Your task to perform on an android device: uninstall "LinkedIn" Image 0: 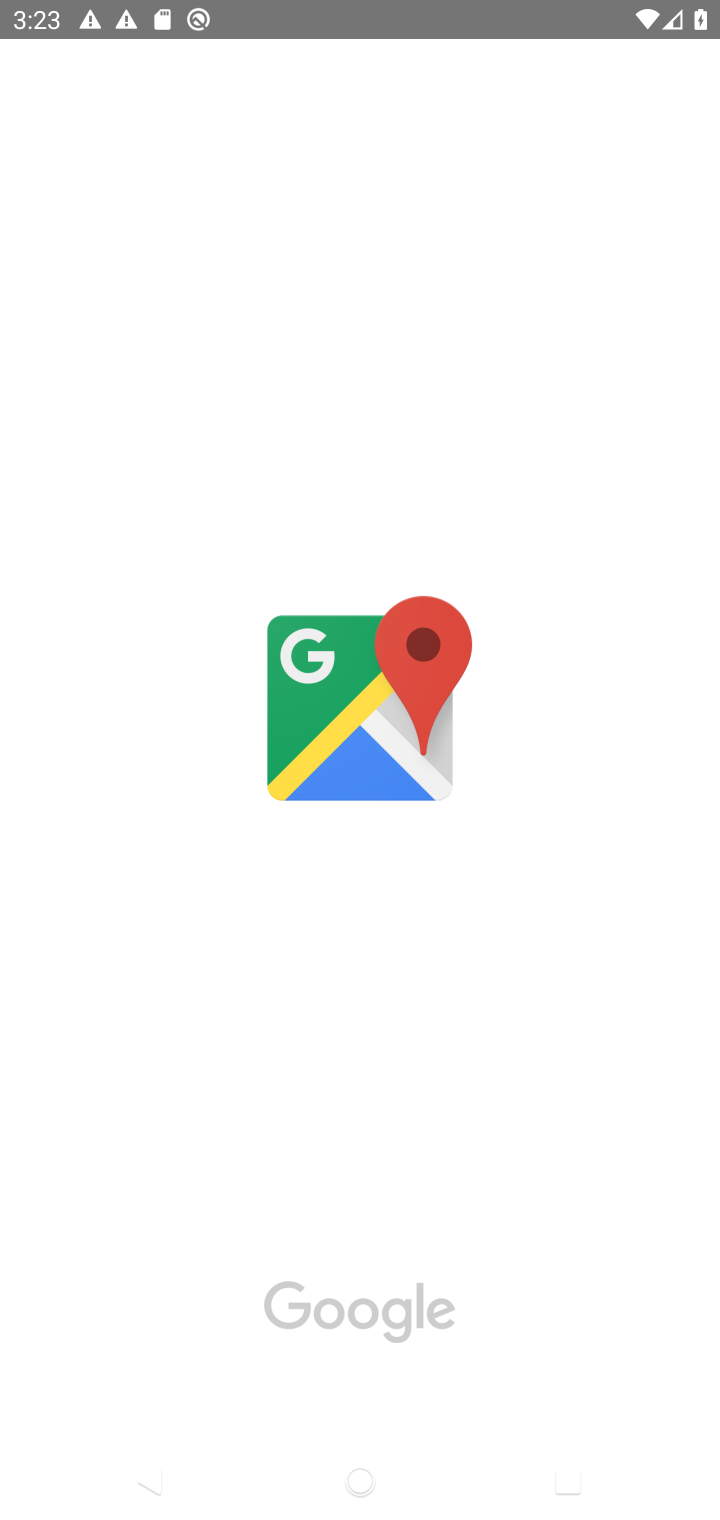
Step 0: press home button
Your task to perform on an android device: uninstall "LinkedIn" Image 1: 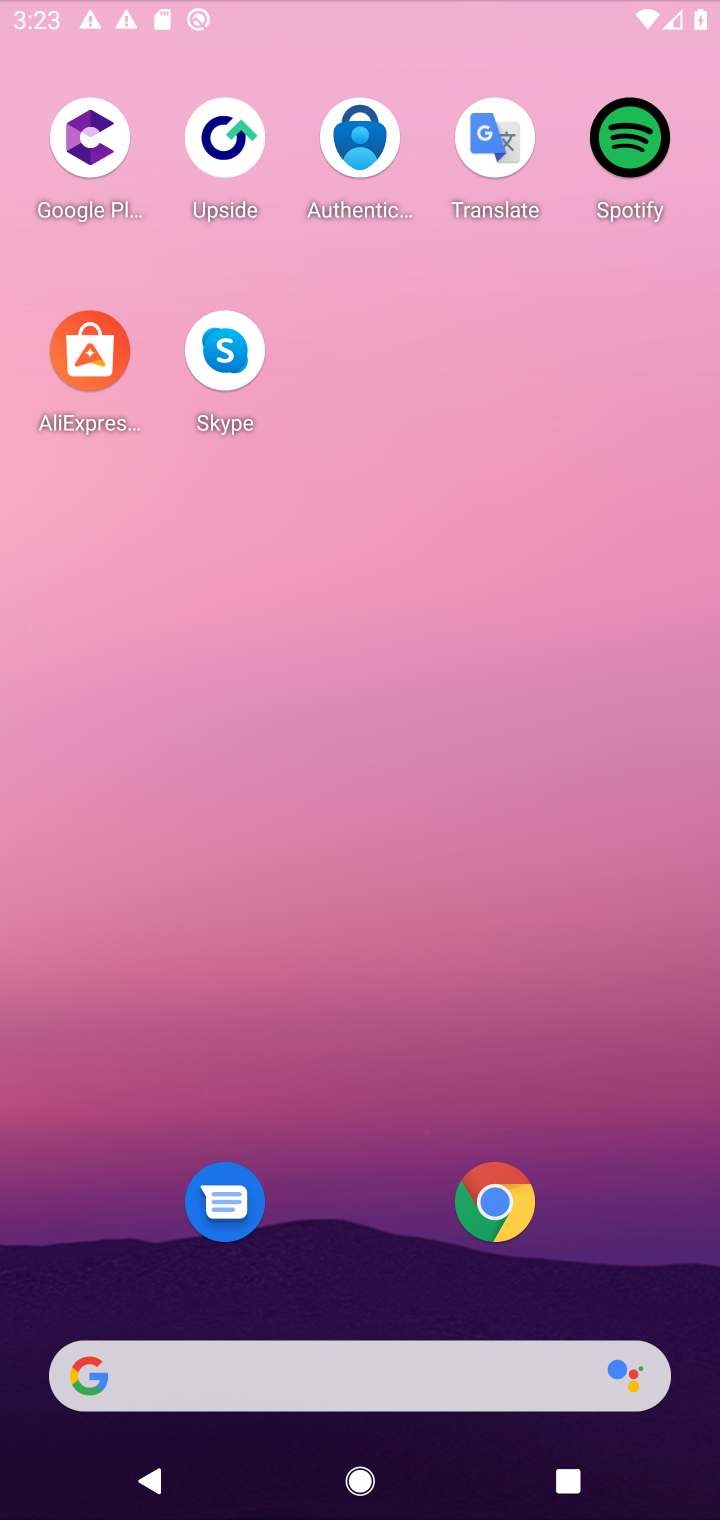
Step 1: press home button
Your task to perform on an android device: uninstall "LinkedIn" Image 2: 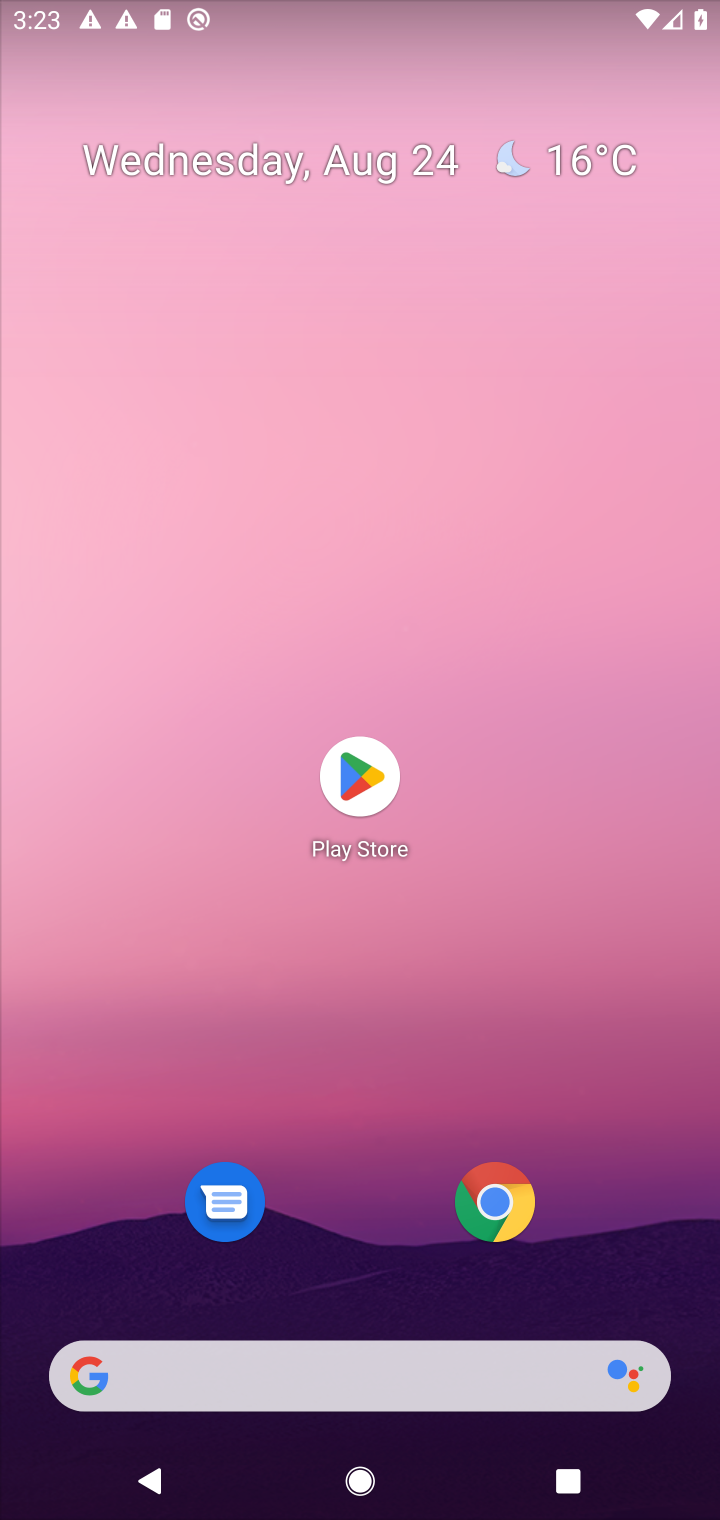
Step 2: press home button
Your task to perform on an android device: uninstall "LinkedIn" Image 3: 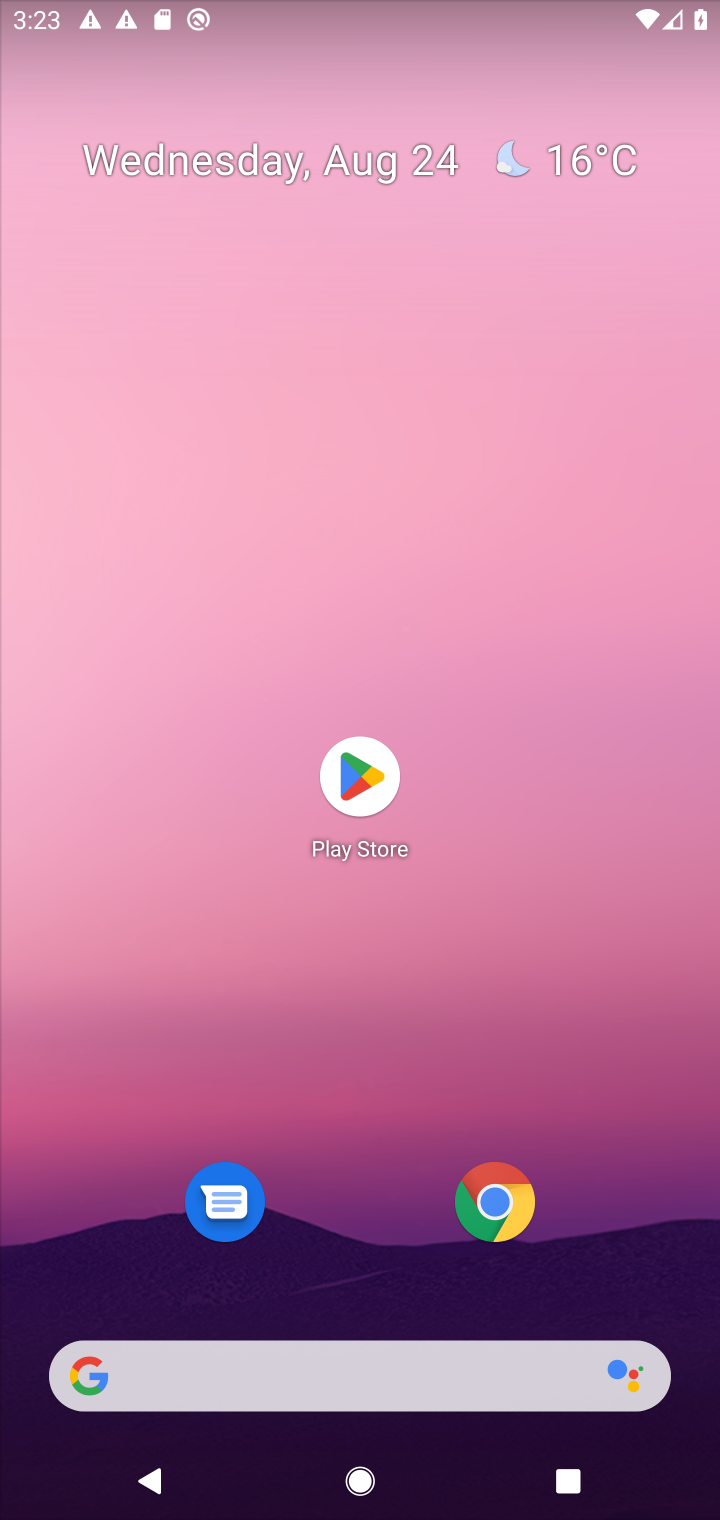
Step 3: click (377, 776)
Your task to perform on an android device: uninstall "LinkedIn" Image 4: 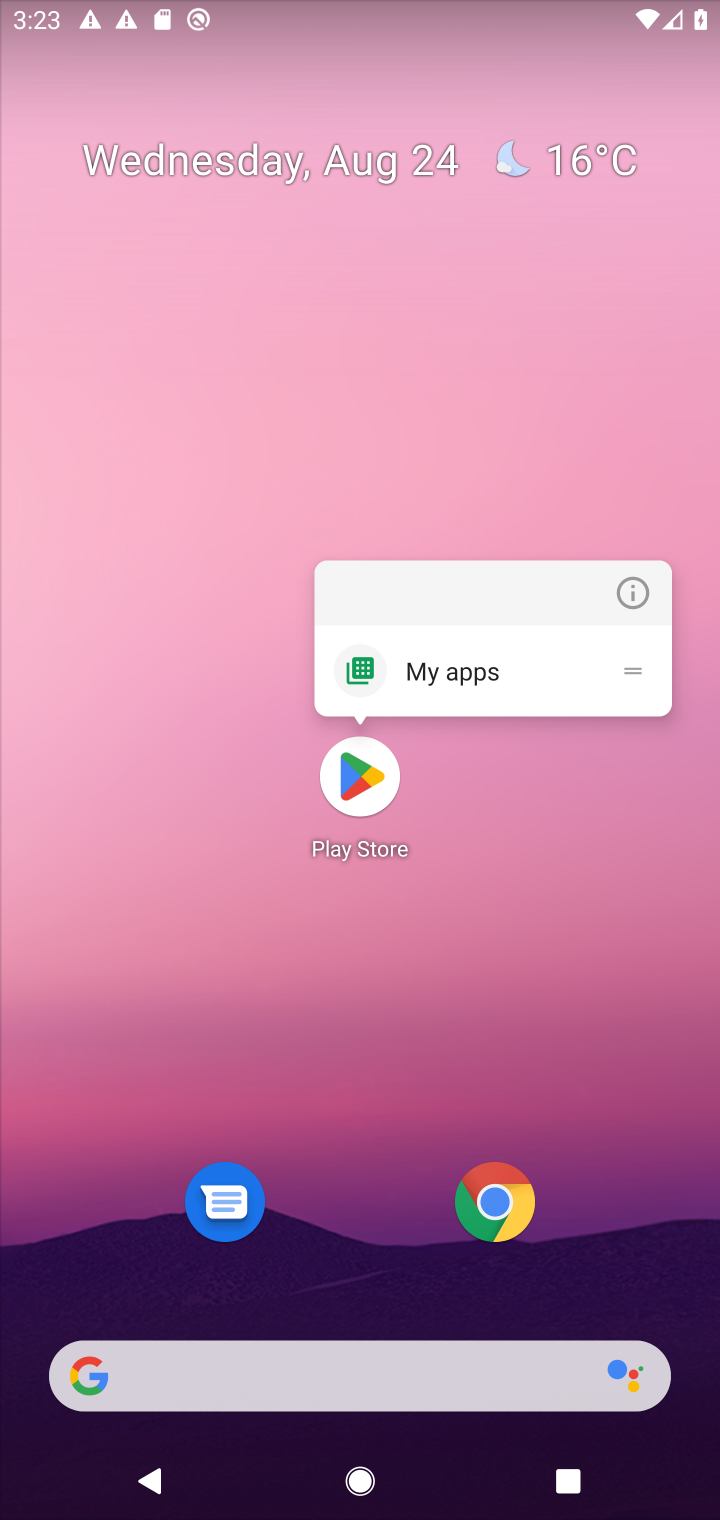
Step 4: click (355, 783)
Your task to perform on an android device: uninstall "LinkedIn" Image 5: 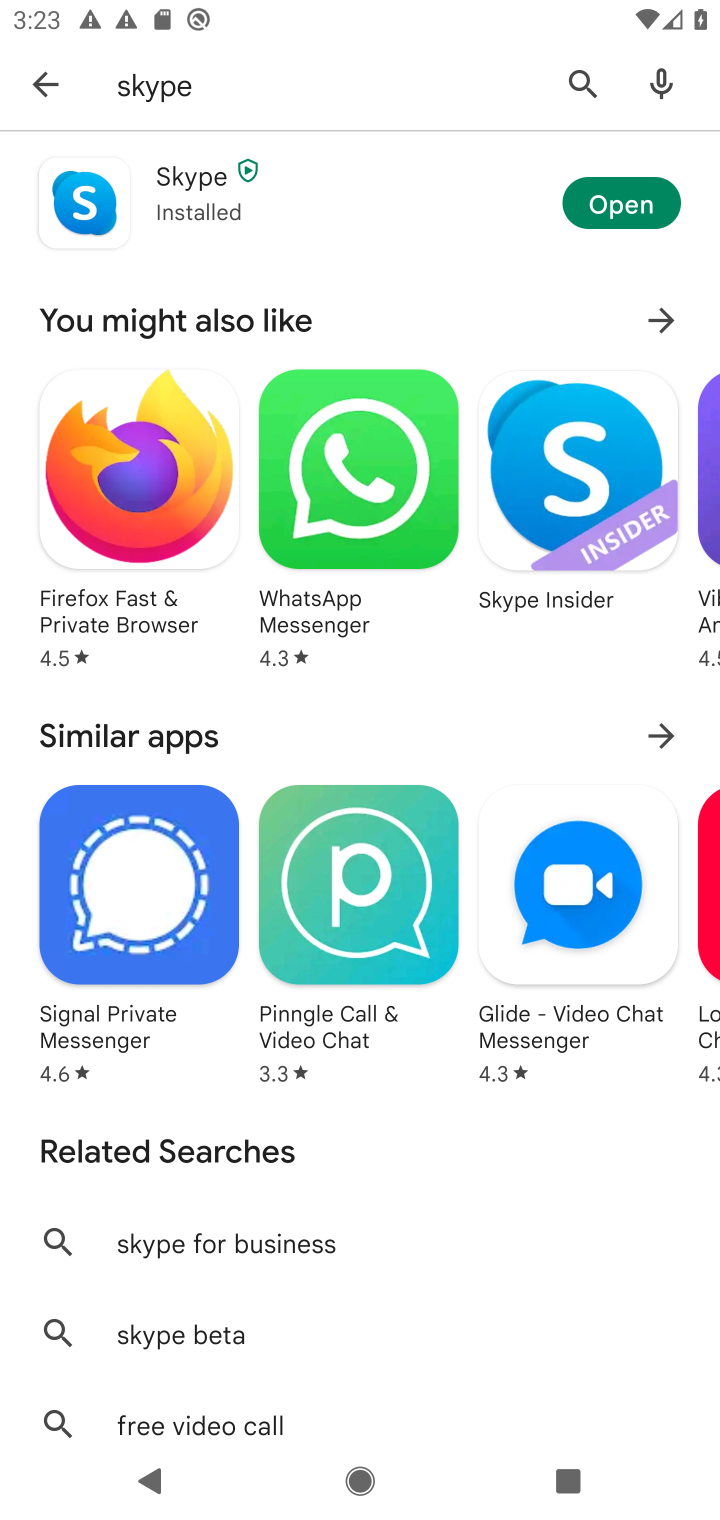
Step 5: click (584, 93)
Your task to perform on an android device: uninstall "LinkedIn" Image 6: 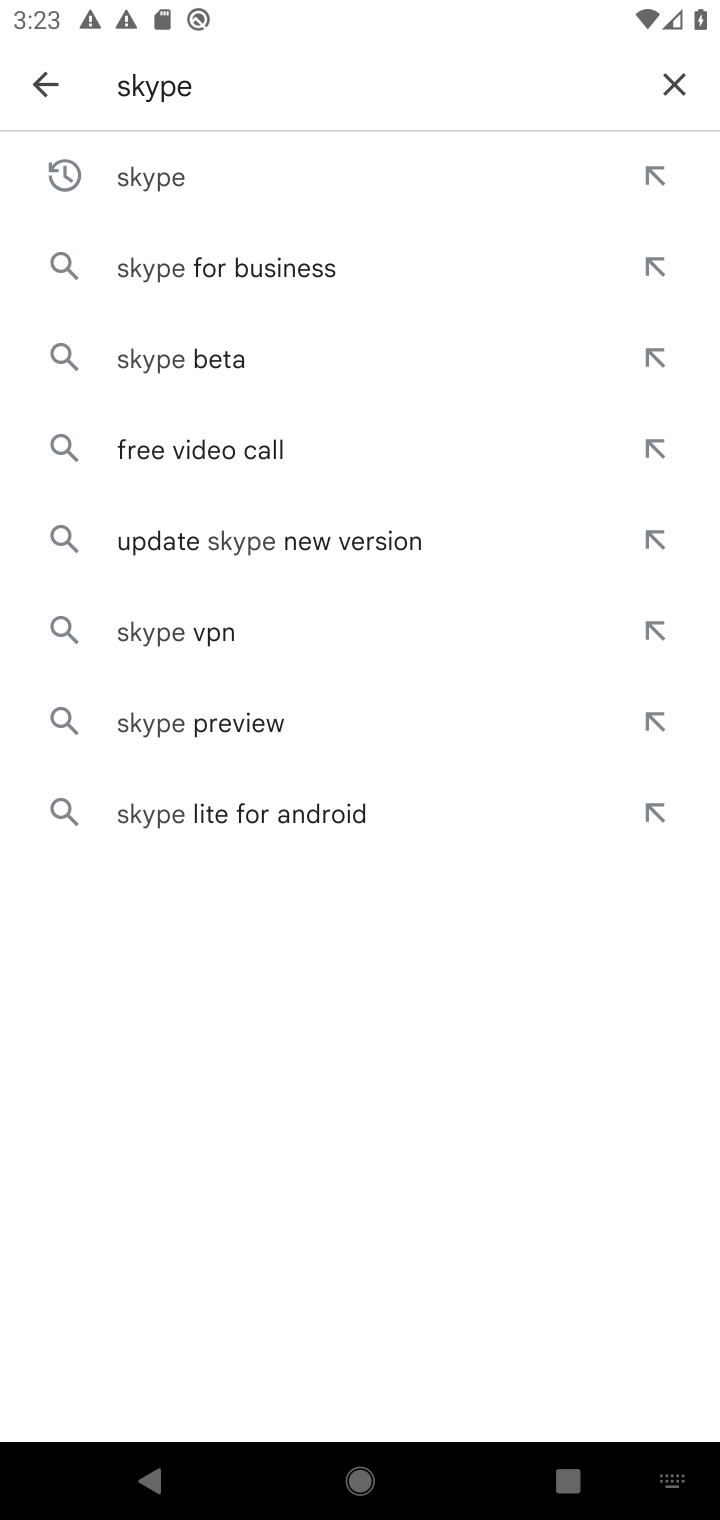
Step 6: click (676, 77)
Your task to perform on an android device: uninstall "LinkedIn" Image 7: 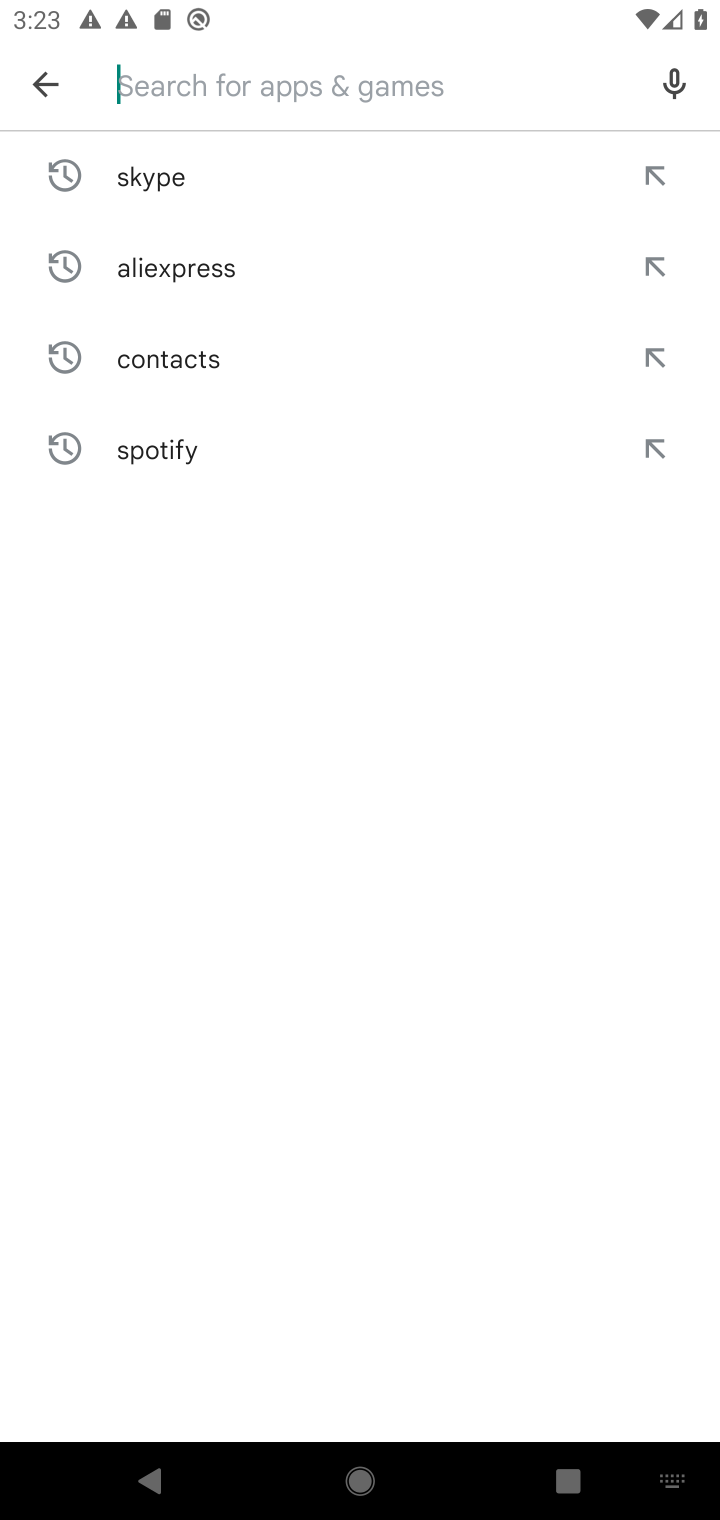
Step 7: type "LinkedIn"
Your task to perform on an android device: uninstall "LinkedIn" Image 8: 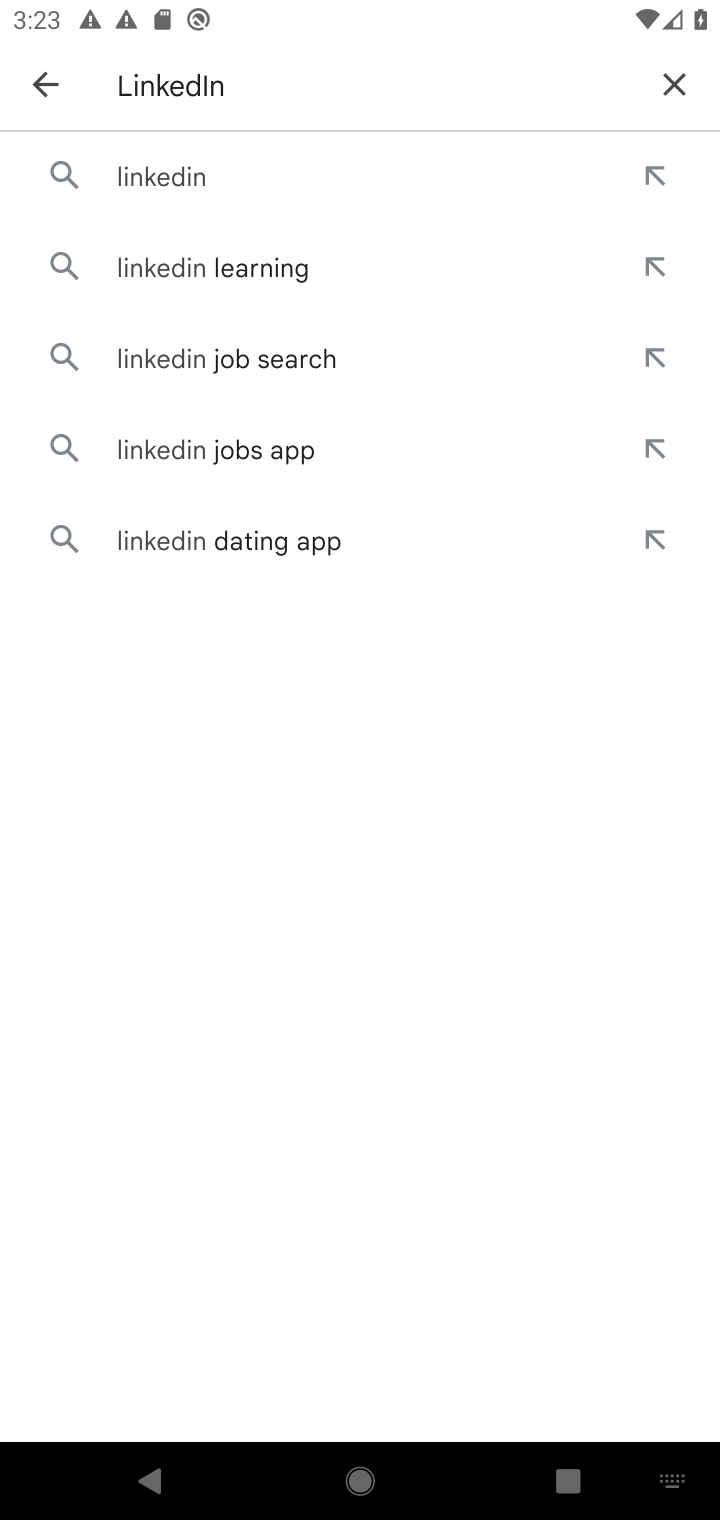
Step 8: click (213, 176)
Your task to perform on an android device: uninstall "LinkedIn" Image 9: 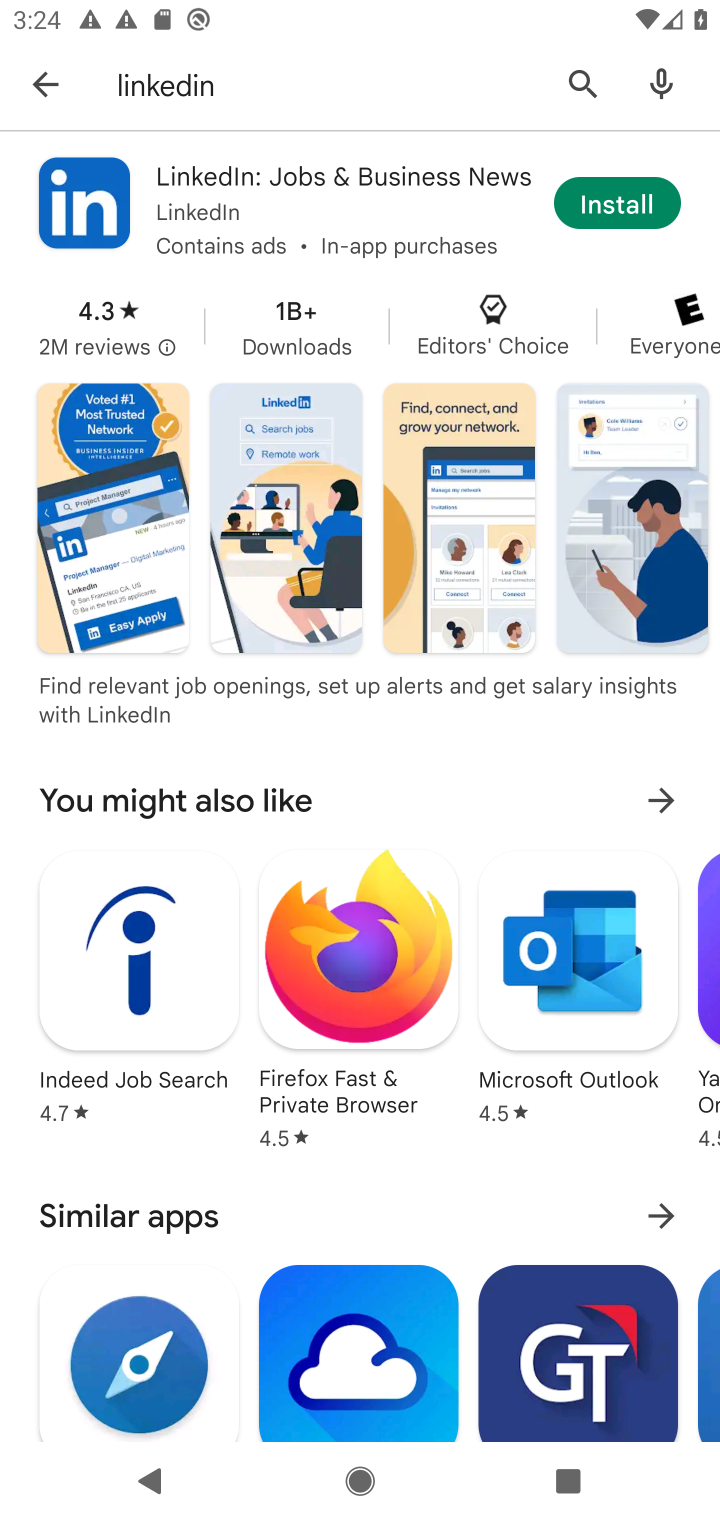
Step 9: task complete